Your task to perform on an android device: Open the Play Movies app and select the watchlist tab. Image 0: 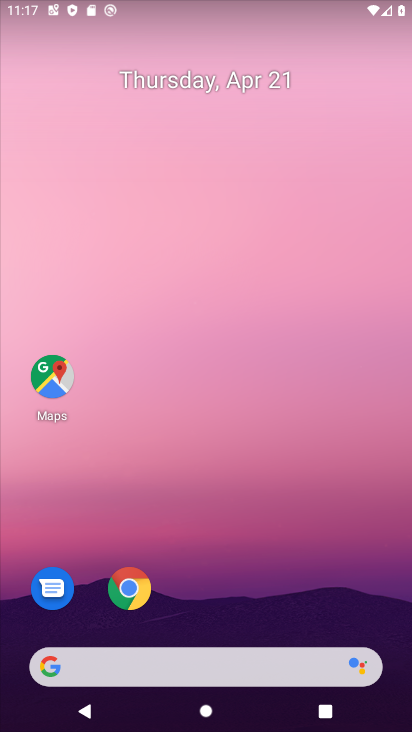
Step 0: drag from (206, 432) to (253, 2)
Your task to perform on an android device: Open the Play Movies app and select the watchlist tab. Image 1: 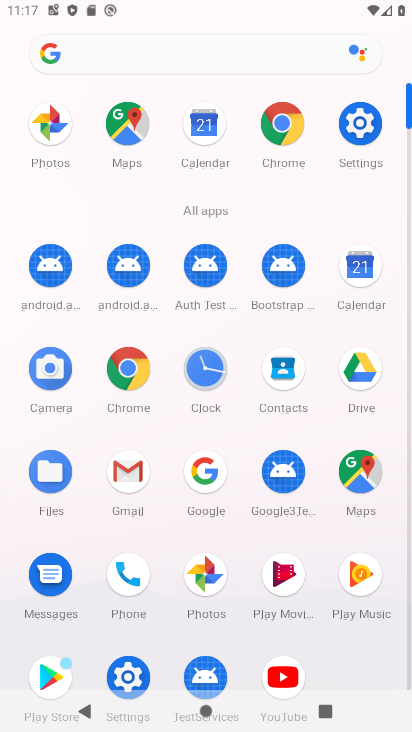
Step 1: click (277, 577)
Your task to perform on an android device: Open the Play Movies app and select the watchlist tab. Image 2: 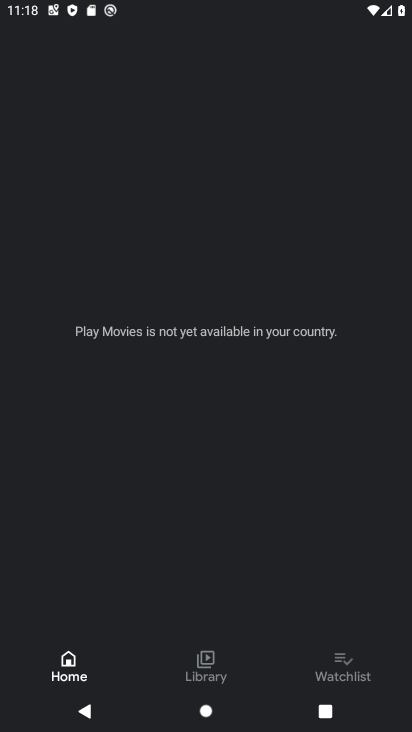
Step 2: click (351, 664)
Your task to perform on an android device: Open the Play Movies app and select the watchlist tab. Image 3: 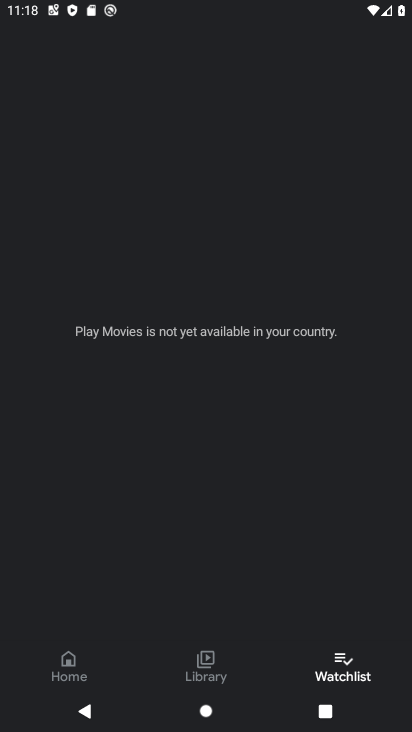
Step 3: task complete